Your task to perform on an android device: turn off wifi Image 0: 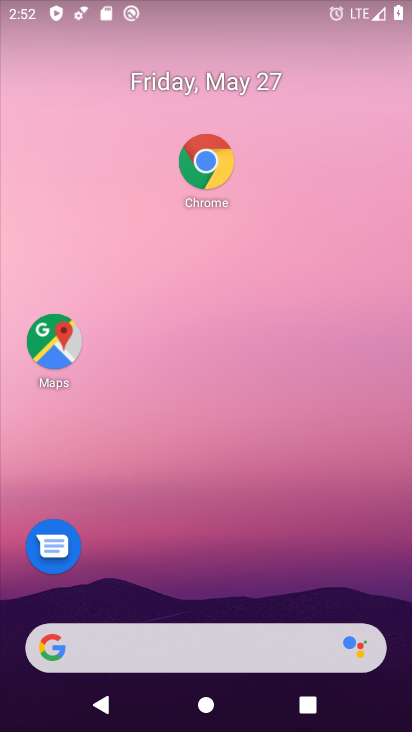
Step 0: drag from (169, 615) to (295, 302)
Your task to perform on an android device: turn off wifi Image 1: 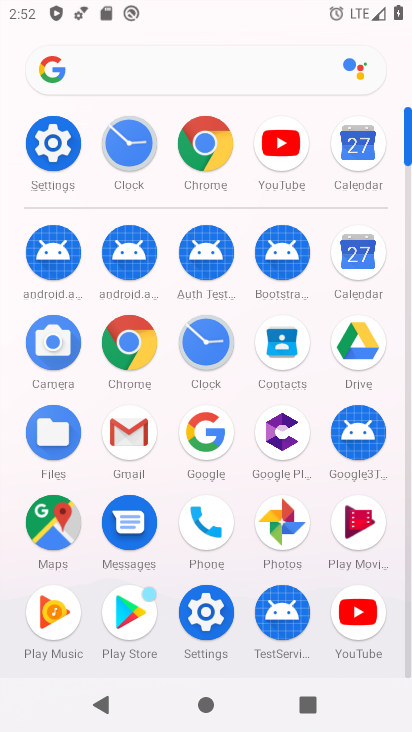
Step 1: click (54, 150)
Your task to perform on an android device: turn off wifi Image 2: 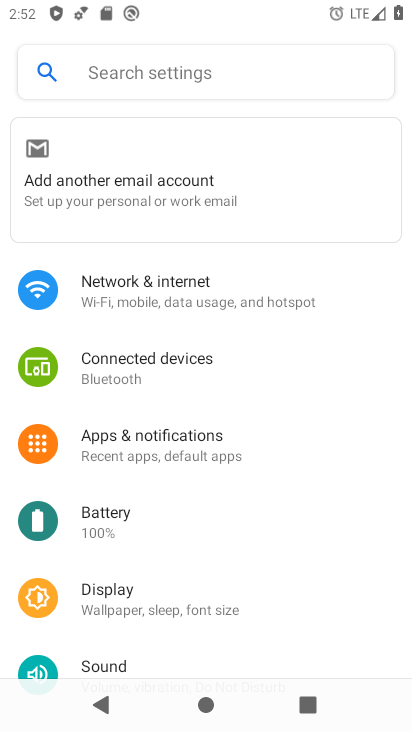
Step 2: click (173, 293)
Your task to perform on an android device: turn off wifi Image 3: 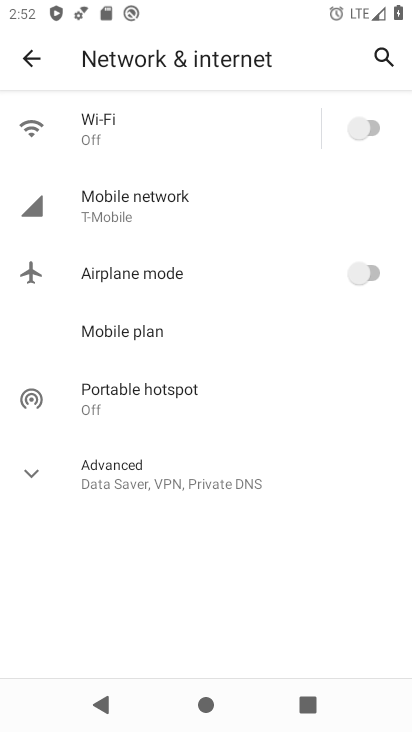
Step 3: task complete